Your task to perform on an android device: Open the map Image 0: 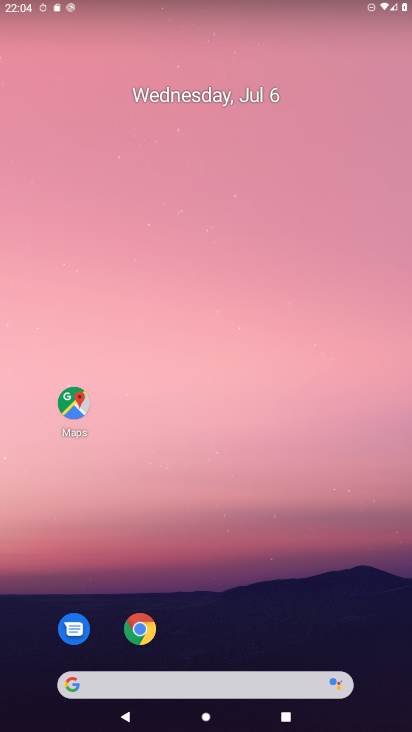
Step 0: drag from (232, 725) to (232, 643)
Your task to perform on an android device: Open the map Image 1: 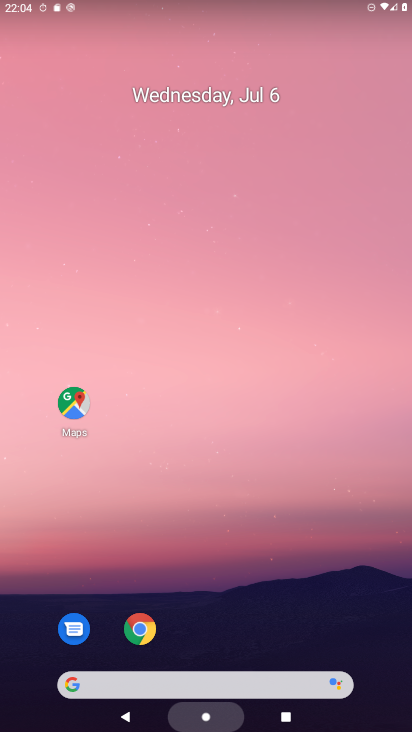
Step 1: drag from (169, 122) to (164, 29)
Your task to perform on an android device: Open the map Image 2: 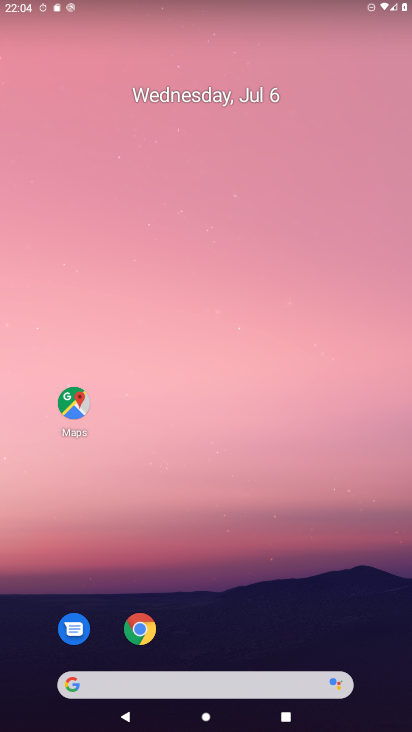
Step 2: drag from (237, 731) to (213, 20)
Your task to perform on an android device: Open the map Image 3: 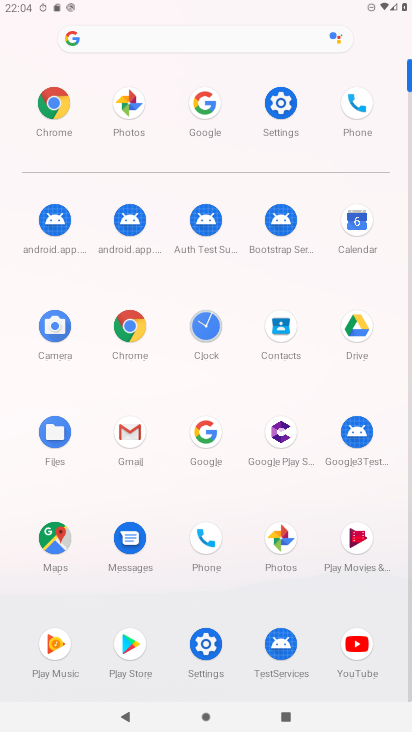
Step 3: click (55, 538)
Your task to perform on an android device: Open the map Image 4: 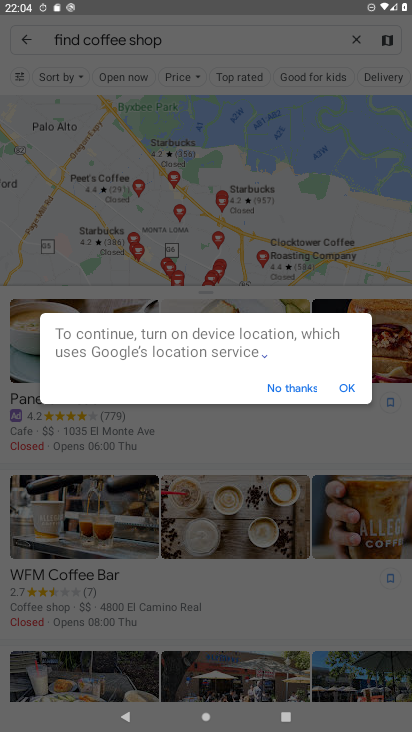
Step 4: click (292, 390)
Your task to perform on an android device: Open the map Image 5: 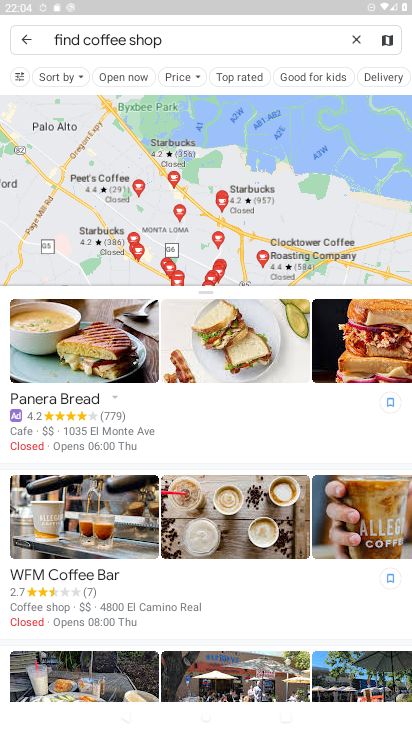
Step 5: task complete